Your task to perform on an android device: delete a single message in the gmail app Image 0: 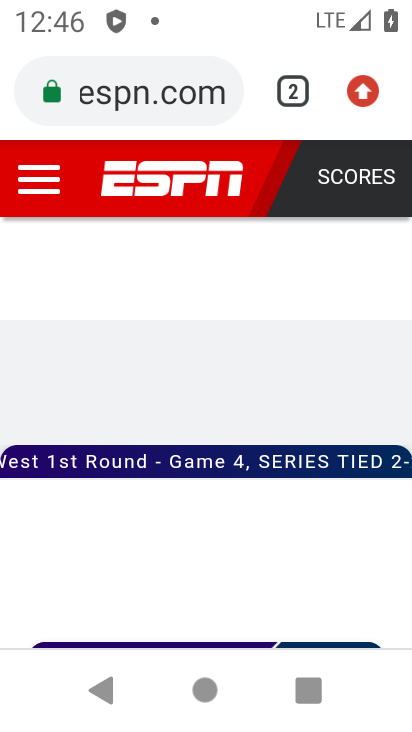
Step 0: press home button
Your task to perform on an android device: delete a single message in the gmail app Image 1: 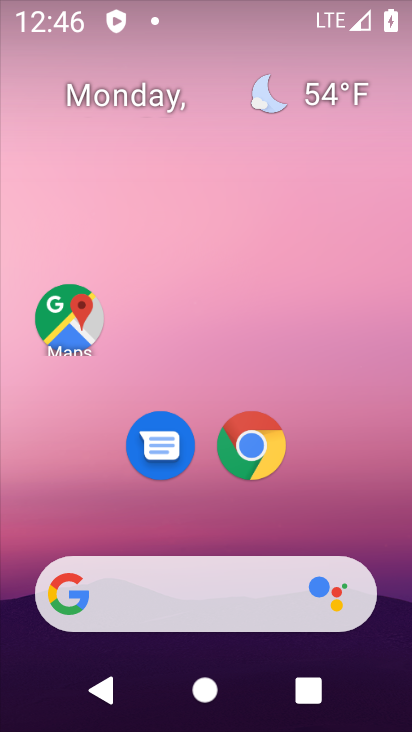
Step 1: drag from (352, 527) to (339, 95)
Your task to perform on an android device: delete a single message in the gmail app Image 2: 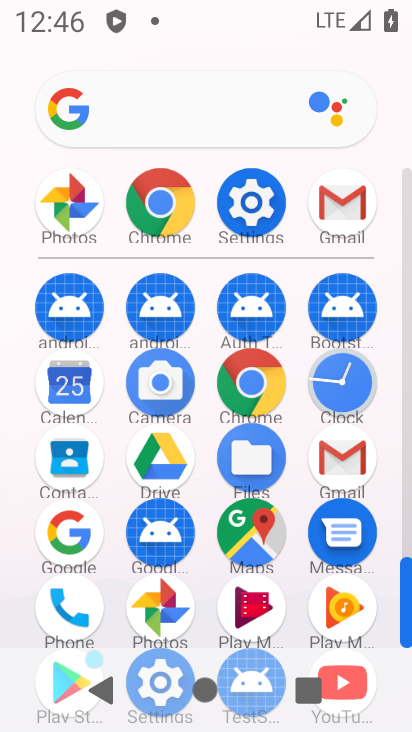
Step 2: click (341, 477)
Your task to perform on an android device: delete a single message in the gmail app Image 3: 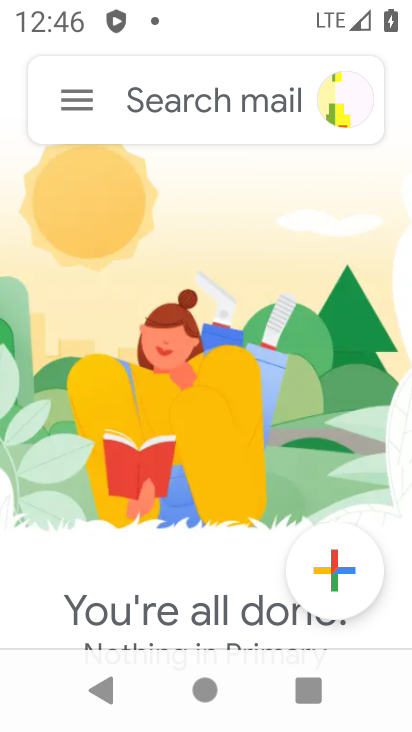
Step 3: click (80, 111)
Your task to perform on an android device: delete a single message in the gmail app Image 4: 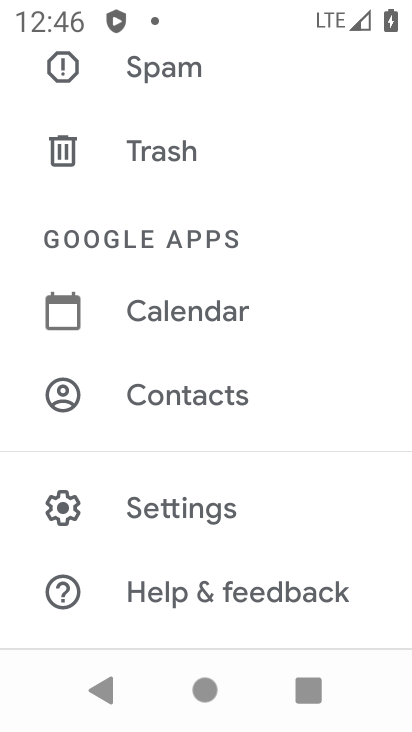
Step 4: drag from (178, 142) to (182, 587)
Your task to perform on an android device: delete a single message in the gmail app Image 5: 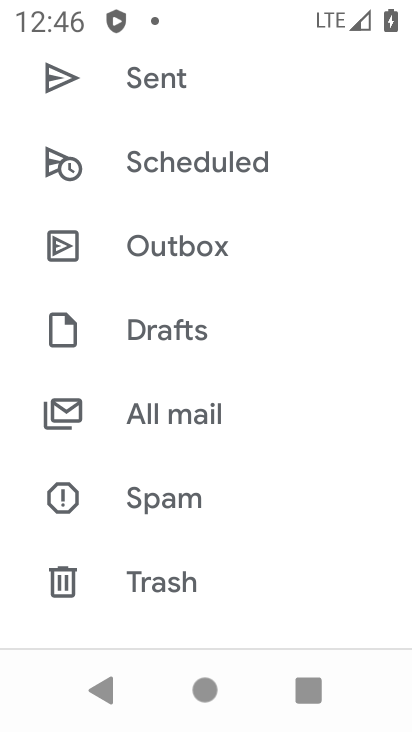
Step 5: click (150, 424)
Your task to perform on an android device: delete a single message in the gmail app Image 6: 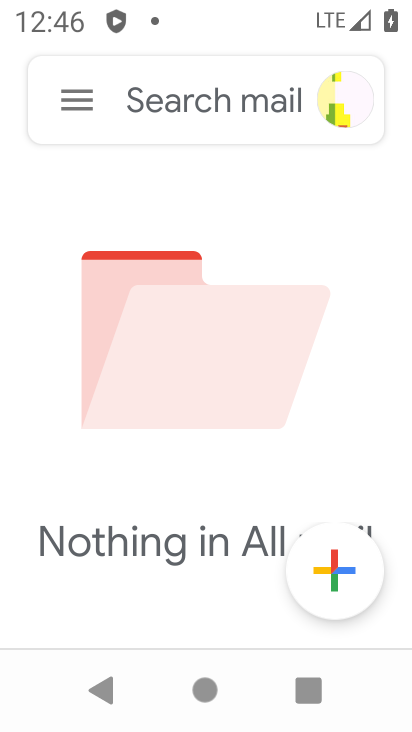
Step 6: task complete